Your task to perform on an android device: Search for seafood restaurants on Google Maps Image 0: 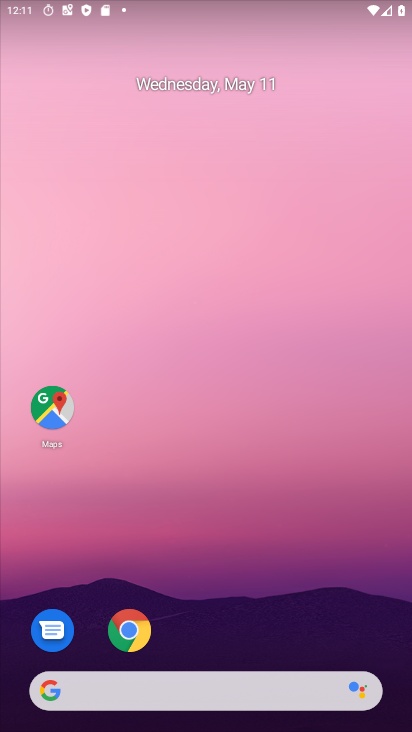
Step 0: drag from (231, 424) to (224, 119)
Your task to perform on an android device: Search for seafood restaurants on Google Maps Image 1: 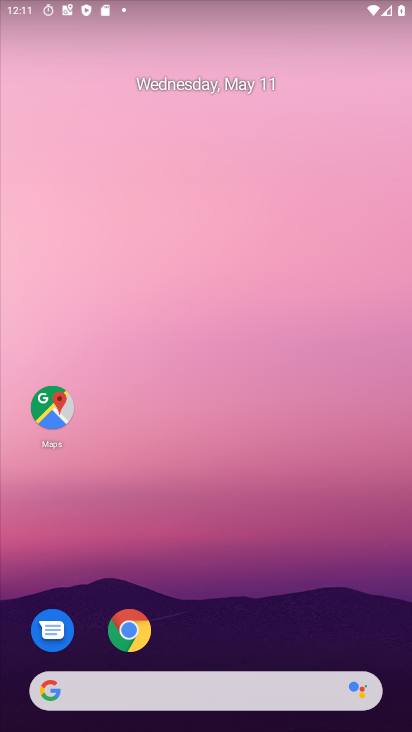
Step 1: click (51, 410)
Your task to perform on an android device: Search for seafood restaurants on Google Maps Image 2: 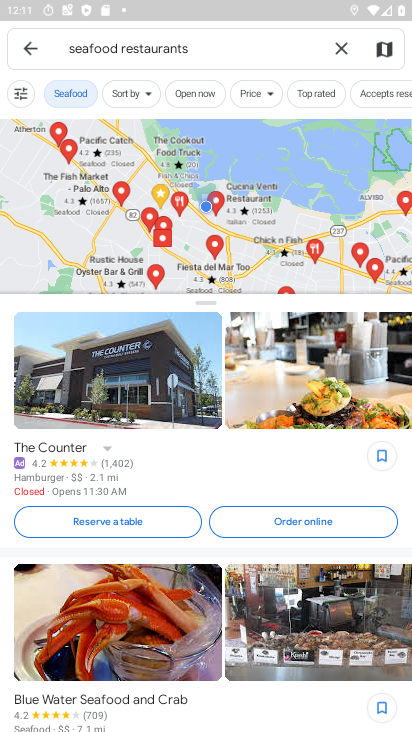
Step 2: task complete